Your task to perform on an android device: Open Yahoo.com Image 0: 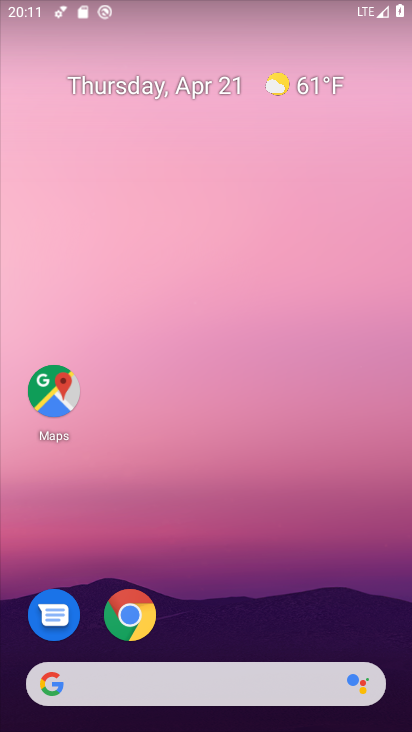
Step 0: drag from (203, 621) to (23, 67)
Your task to perform on an android device: Open Yahoo.com Image 1: 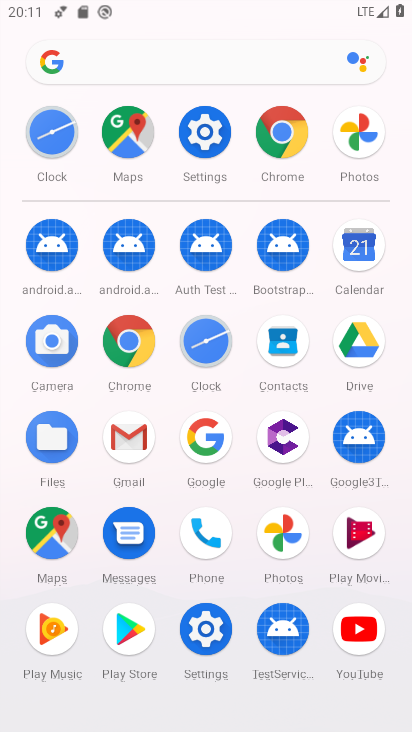
Step 1: click (118, 341)
Your task to perform on an android device: Open Yahoo.com Image 2: 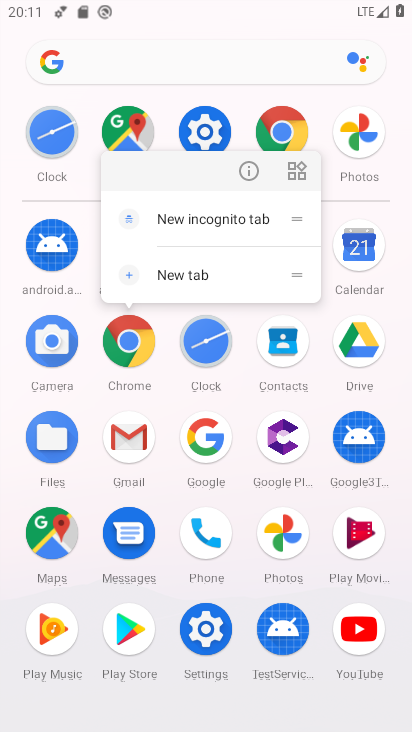
Step 2: click (240, 172)
Your task to perform on an android device: Open Yahoo.com Image 3: 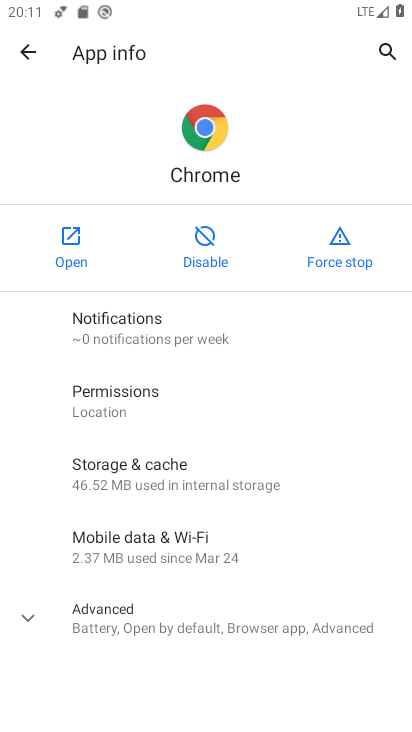
Step 3: click (75, 240)
Your task to perform on an android device: Open Yahoo.com Image 4: 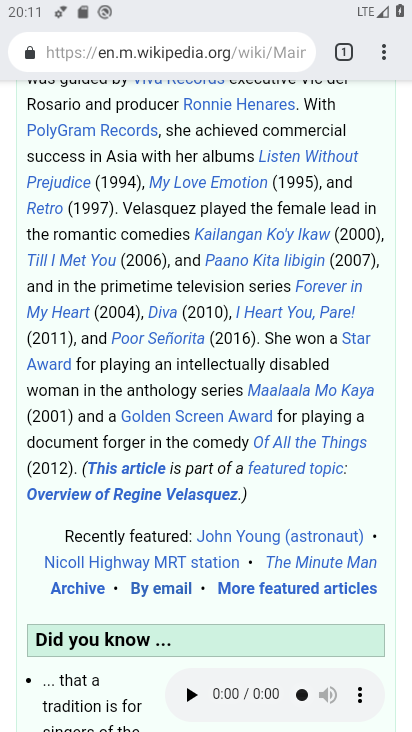
Step 4: click (247, 59)
Your task to perform on an android device: Open Yahoo.com Image 5: 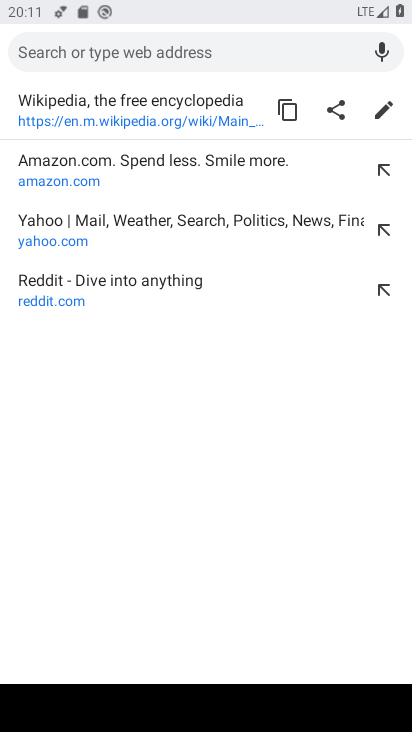
Step 5: type "yahoo.com"
Your task to perform on an android device: Open Yahoo.com Image 6: 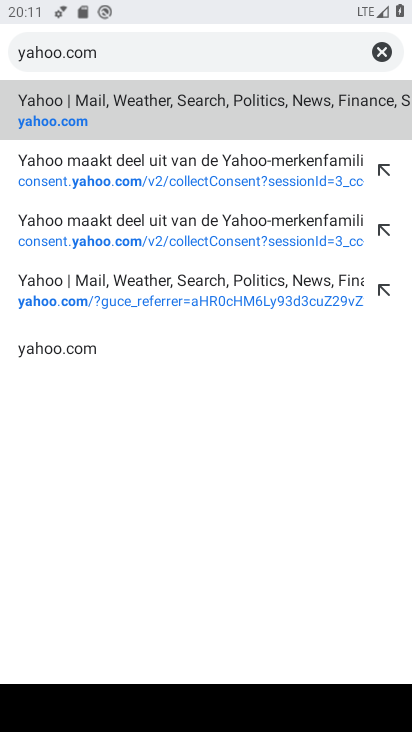
Step 6: click (71, 115)
Your task to perform on an android device: Open Yahoo.com Image 7: 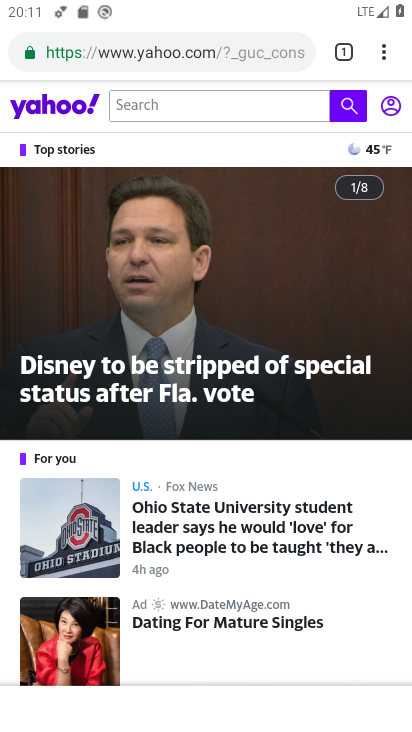
Step 7: task complete